Your task to perform on an android device: Go to network settings Image 0: 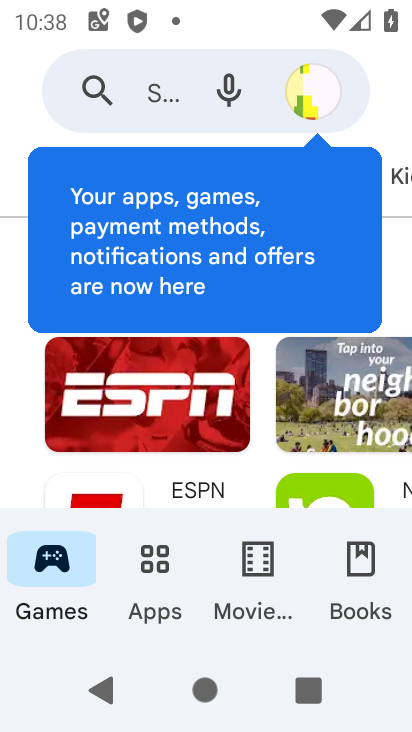
Step 0: press home button
Your task to perform on an android device: Go to network settings Image 1: 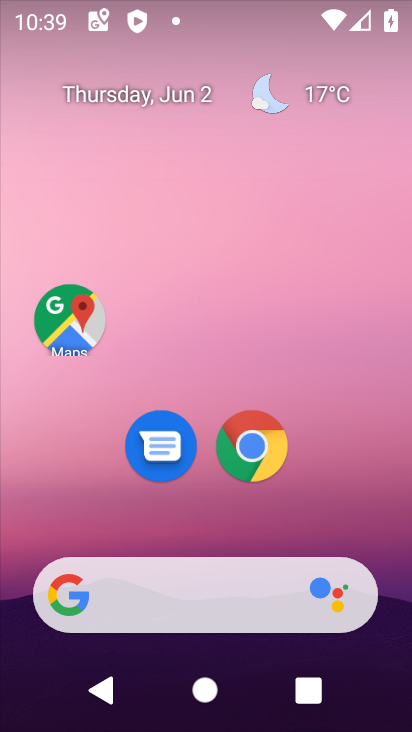
Step 1: drag from (366, 521) to (355, 211)
Your task to perform on an android device: Go to network settings Image 2: 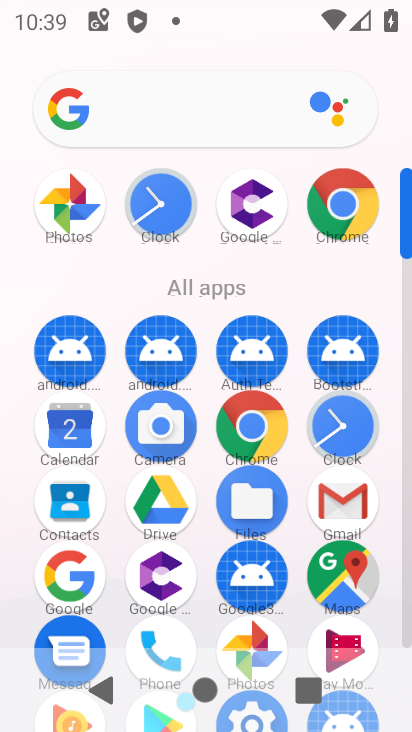
Step 2: drag from (205, 540) to (206, 232)
Your task to perform on an android device: Go to network settings Image 3: 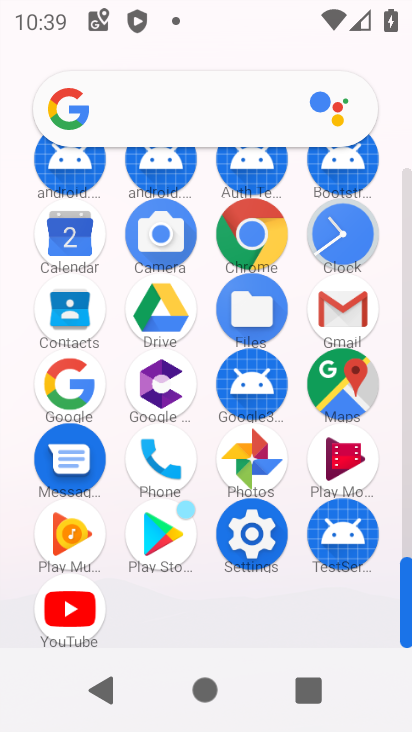
Step 3: click (262, 532)
Your task to perform on an android device: Go to network settings Image 4: 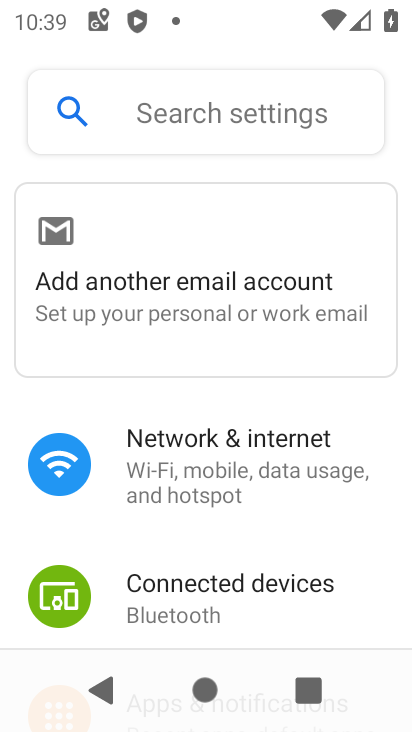
Step 4: drag from (365, 549) to (377, 378)
Your task to perform on an android device: Go to network settings Image 5: 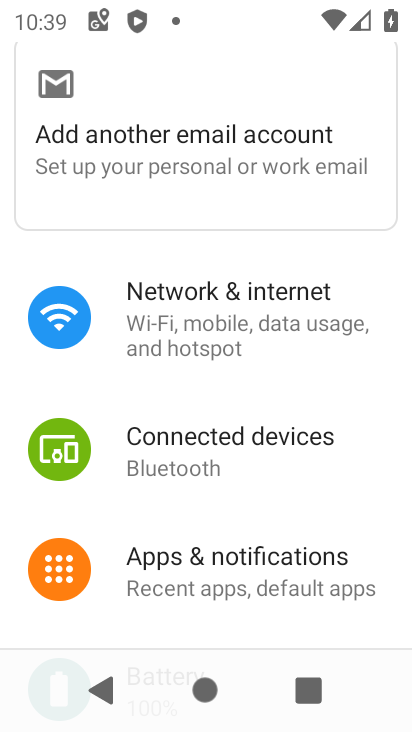
Step 5: drag from (367, 619) to (370, 287)
Your task to perform on an android device: Go to network settings Image 6: 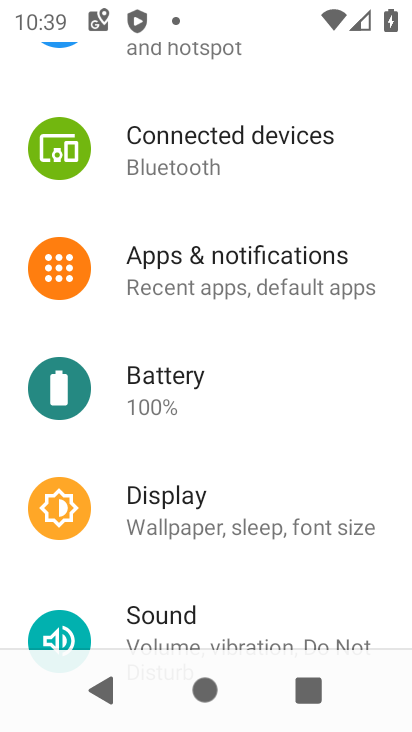
Step 6: drag from (375, 579) to (376, 310)
Your task to perform on an android device: Go to network settings Image 7: 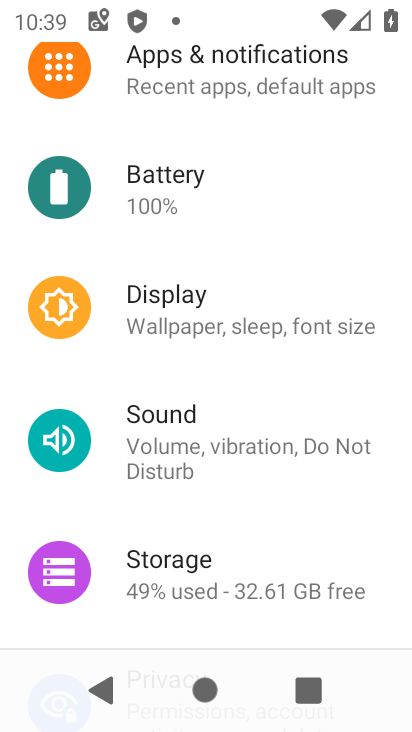
Step 7: drag from (366, 513) to (377, 290)
Your task to perform on an android device: Go to network settings Image 8: 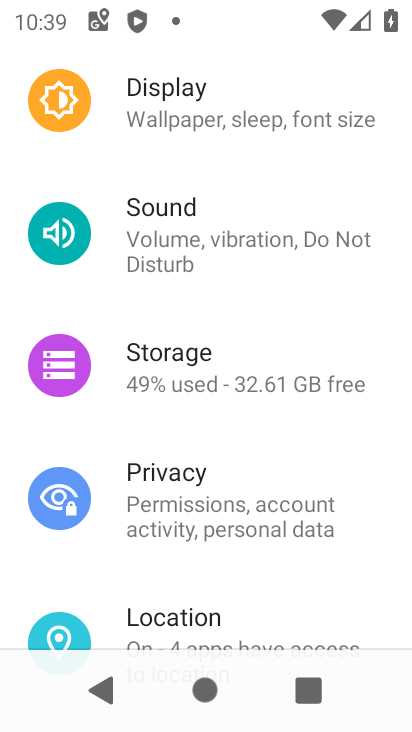
Step 8: drag from (372, 290) to (378, 440)
Your task to perform on an android device: Go to network settings Image 9: 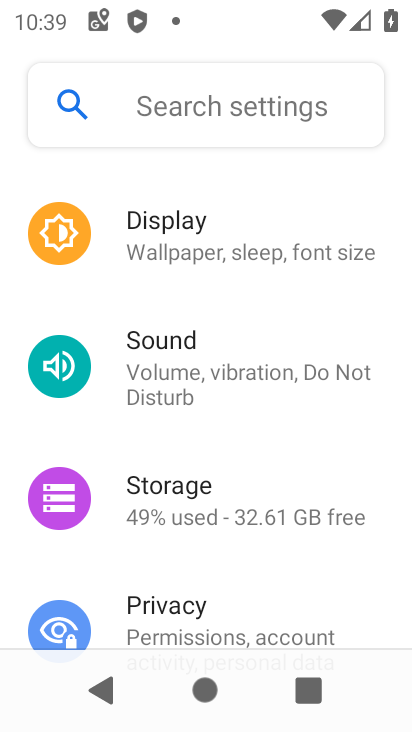
Step 9: drag from (381, 214) to (389, 388)
Your task to perform on an android device: Go to network settings Image 10: 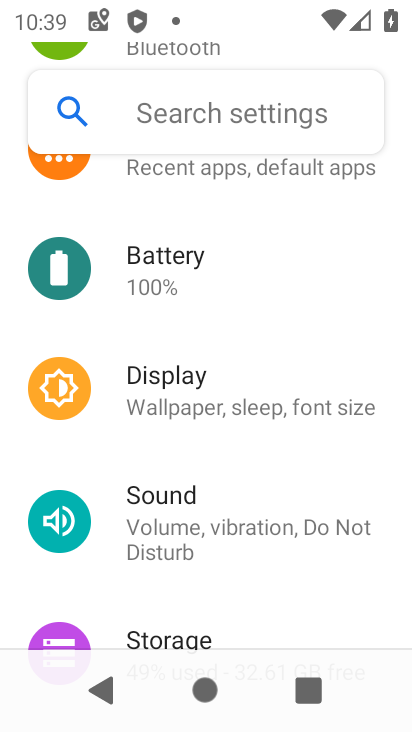
Step 10: drag from (382, 224) to (383, 382)
Your task to perform on an android device: Go to network settings Image 11: 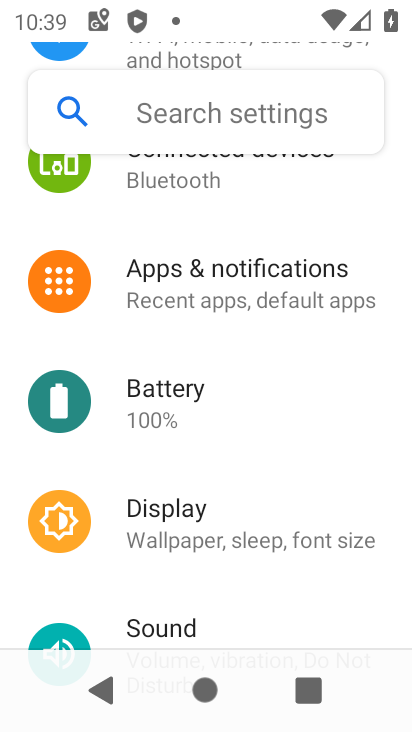
Step 11: drag from (365, 204) to (370, 410)
Your task to perform on an android device: Go to network settings Image 12: 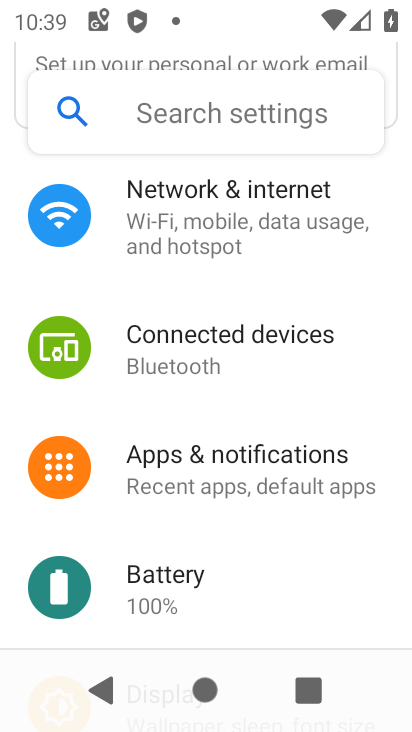
Step 12: drag from (373, 180) to (371, 463)
Your task to perform on an android device: Go to network settings Image 13: 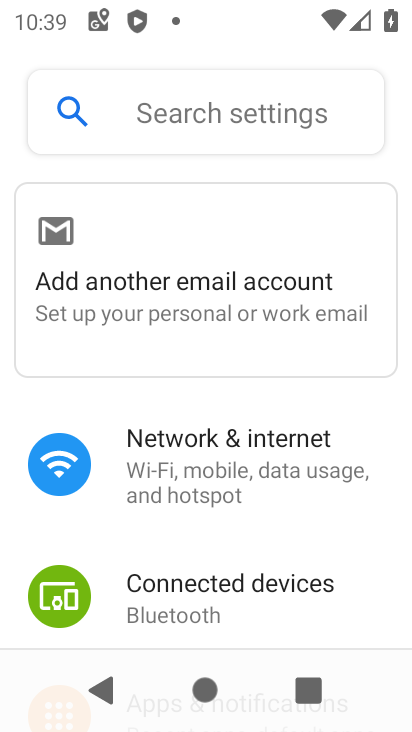
Step 13: click (292, 477)
Your task to perform on an android device: Go to network settings Image 14: 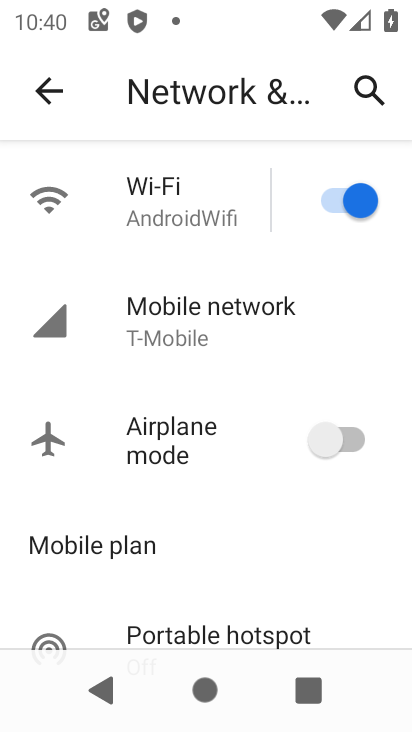
Step 14: task complete